Your task to perform on an android device: Clear the shopping cart on bestbuy.com. Add razer naga to the cart on bestbuy.com Image 0: 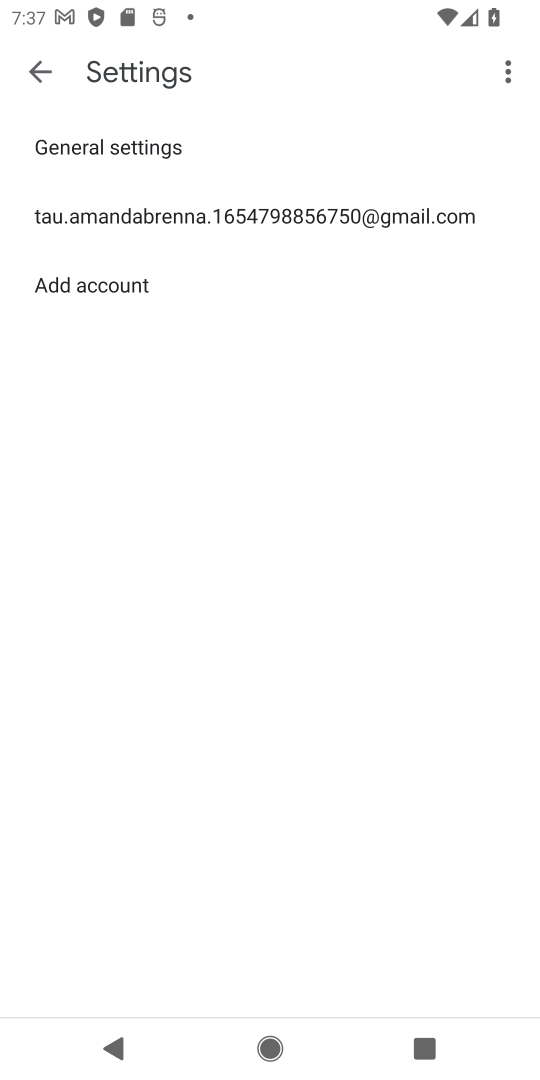
Step 0: press home button
Your task to perform on an android device: Clear the shopping cart on bestbuy.com. Add razer naga to the cart on bestbuy.com Image 1: 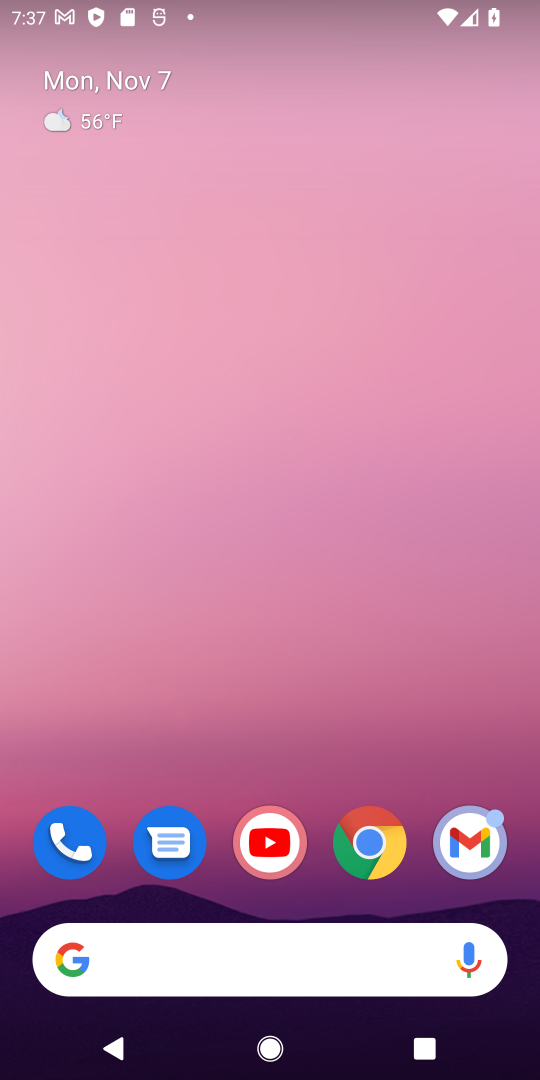
Step 1: click (531, 923)
Your task to perform on an android device: Clear the shopping cart on bestbuy.com. Add razer naga to the cart on bestbuy.com Image 2: 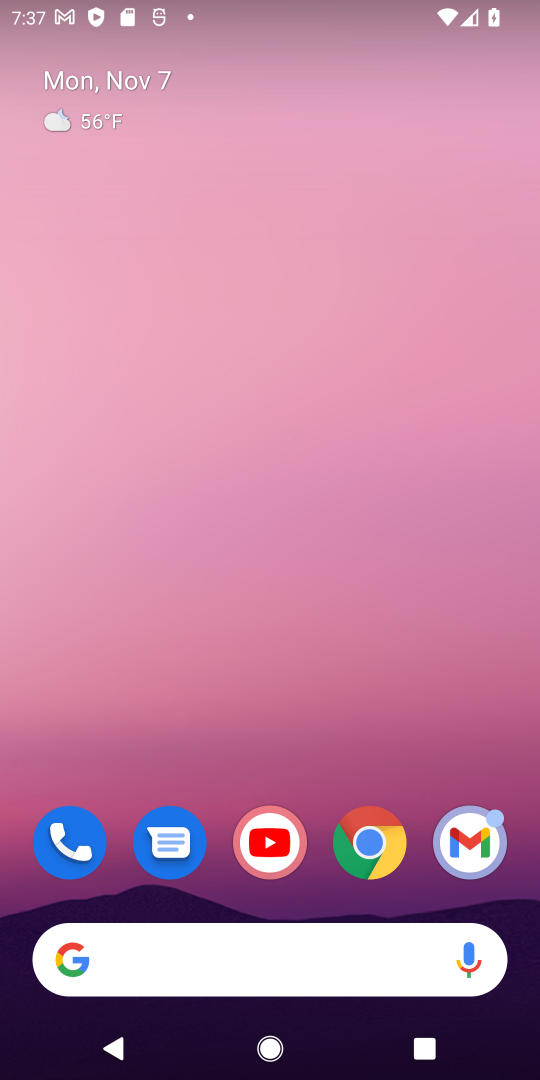
Step 2: click (365, 840)
Your task to perform on an android device: Clear the shopping cart on bestbuy.com. Add razer naga to the cart on bestbuy.com Image 3: 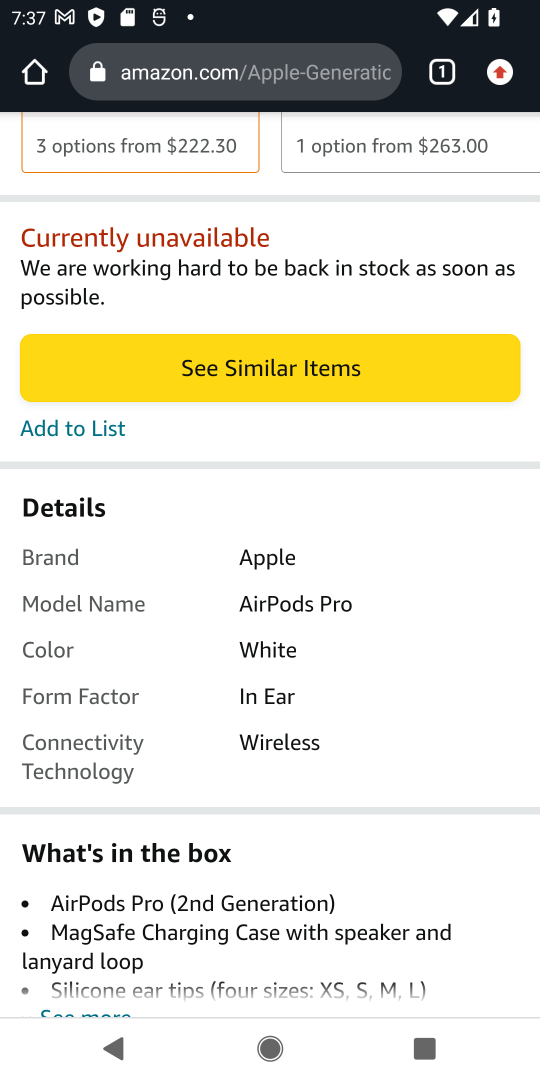
Step 3: click (303, 87)
Your task to perform on an android device: Clear the shopping cart on bestbuy.com. Add razer naga to the cart on bestbuy.com Image 4: 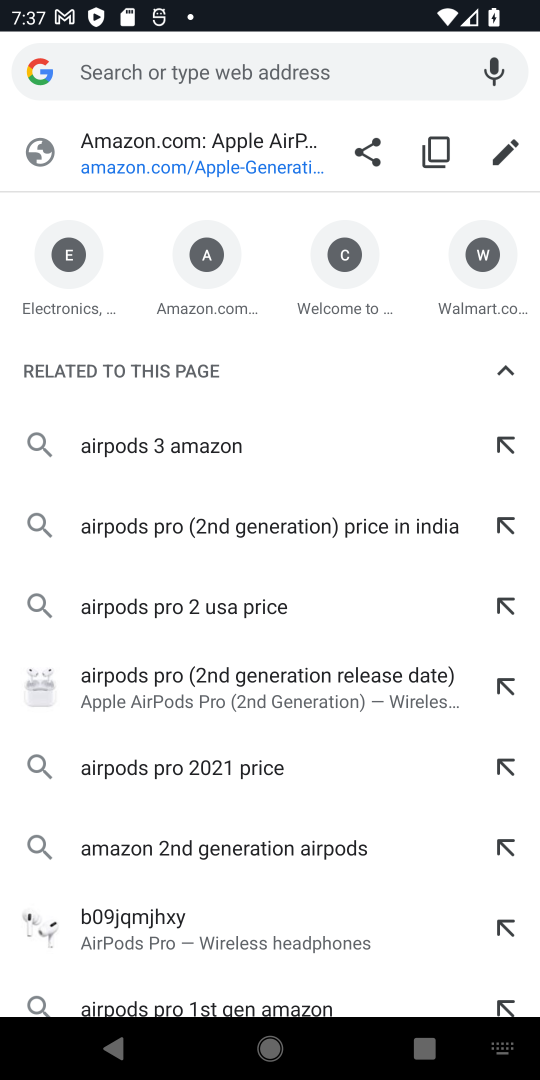
Step 4: drag from (477, 284) to (42, 351)
Your task to perform on an android device: Clear the shopping cart on bestbuy.com. Add razer naga to the cart on bestbuy.com Image 5: 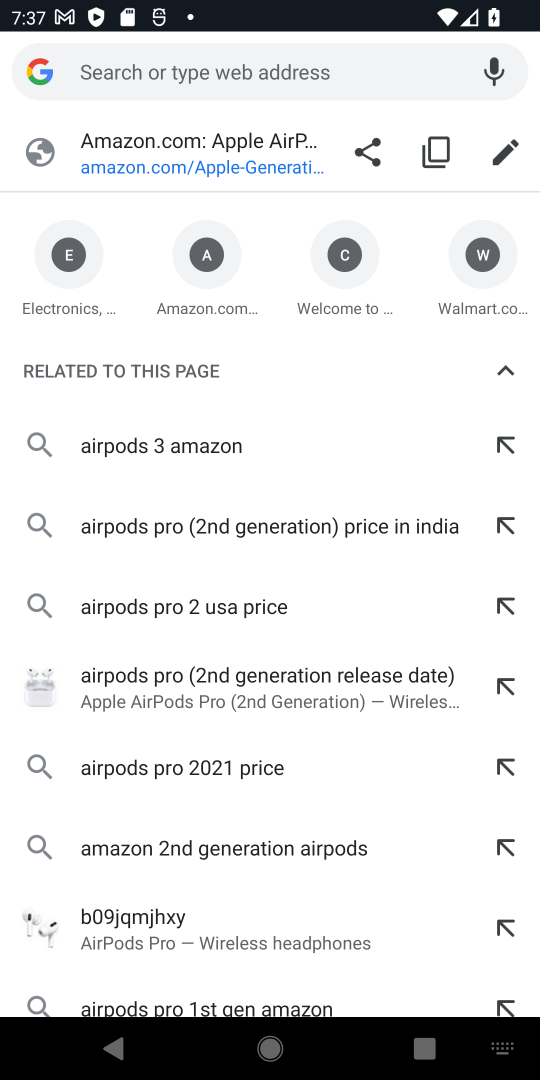
Step 5: drag from (389, 298) to (0, 355)
Your task to perform on an android device: Clear the shopping cart on bestbuy.com. Add razer naga to the cart on bestbuy.com Image 6: 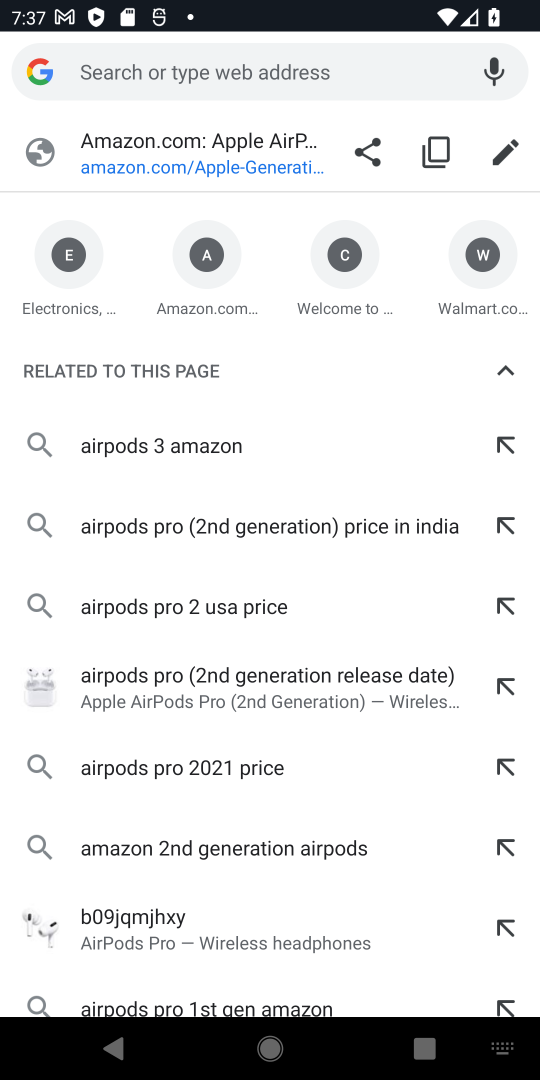
Step 6: type "bestbuy.com"
Your task to perform on an android device: Clear the shopping cart on bestbuy.com. Add razer naga to the cart on bestbuy.com Image 7: 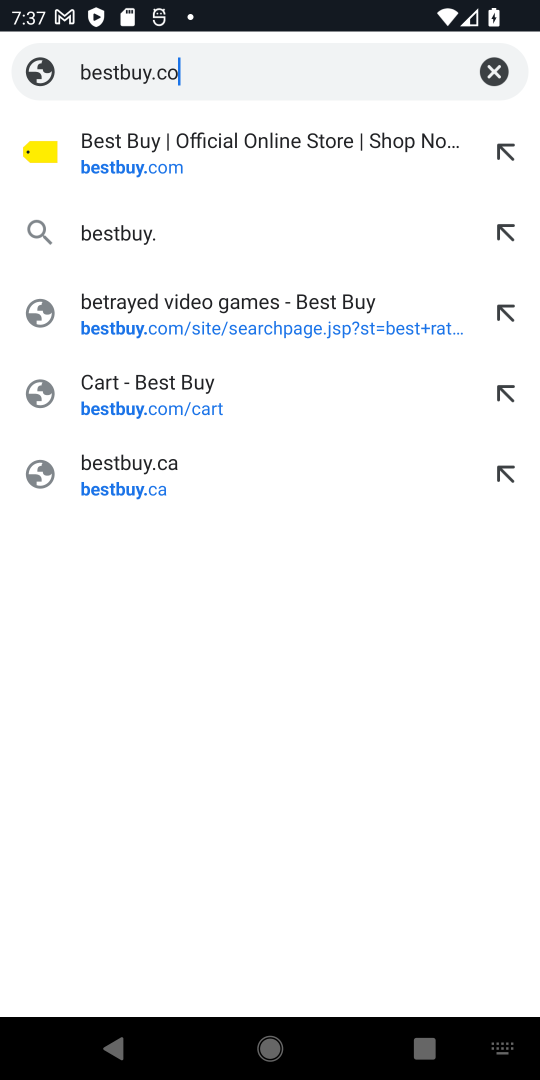
Step 7: press enter
Your task to perform on an android device: Clear the shopping cart on bestbuy.com. Add razer naga to the cart on bestbuy.com Image 8: 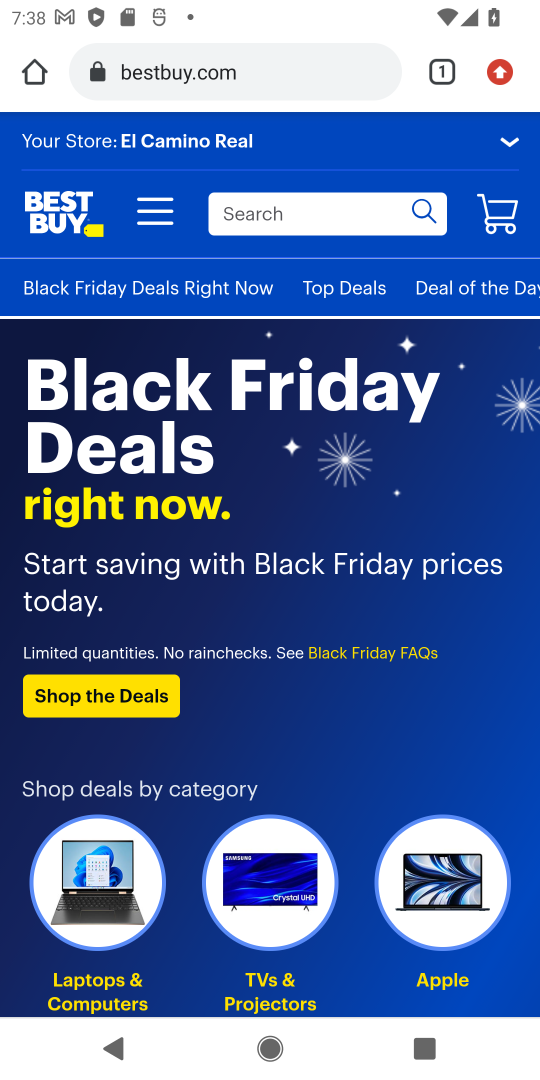
Step 8: click (330, 216)
Your task to perform on an android device: Clear the shopping cart on bestbuy.com. Add razer naga to the cart on bestbuy.com Image 9: 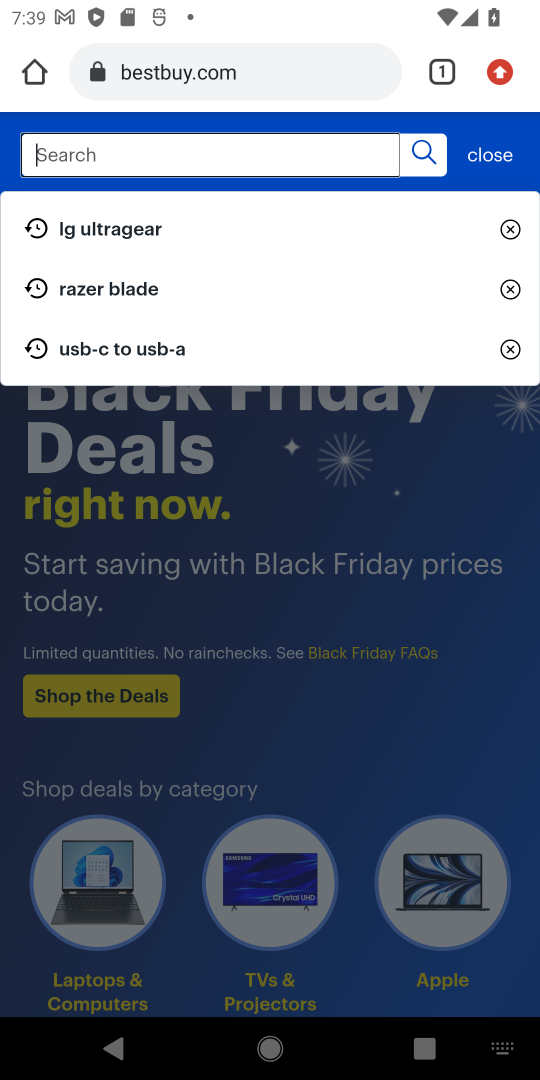
Step 9: type "razer naga"
Your task to perform on an android device: Clear the shopping cart on bestbuy.com. Add razer naga to the cart on bestbuy.com Image 10: 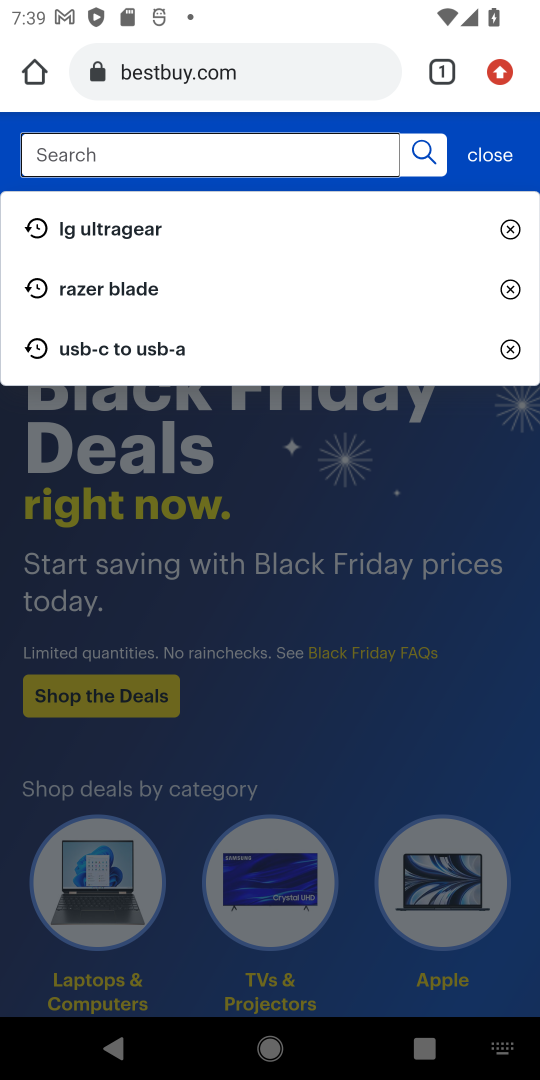
Step 10: press enter
Your task to perform on an android device: Clear the shopping cart on bestbuy.com. Add razer naga to the cart on bestbuy.com Image 11: 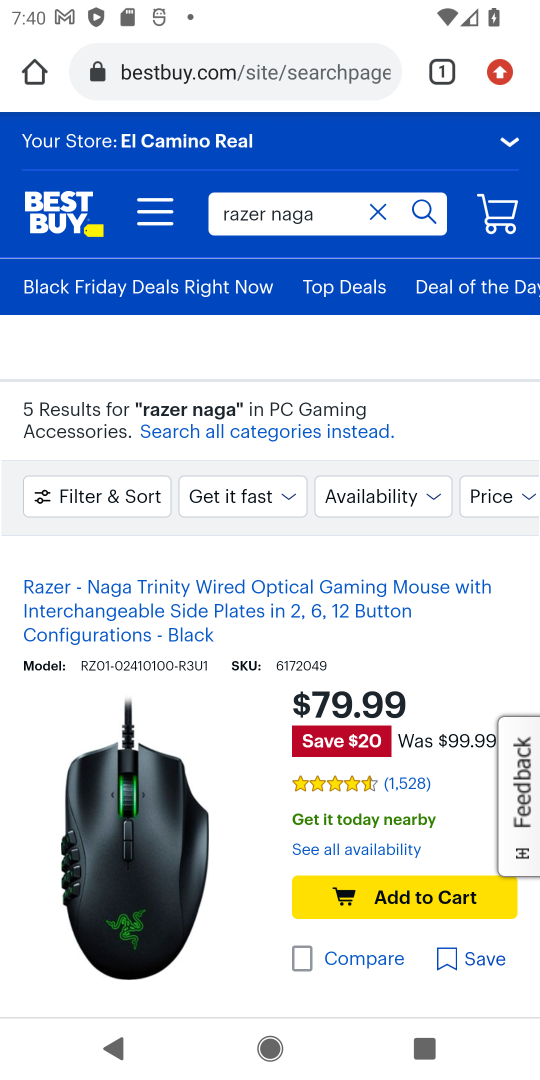
Step 11: click (409, 893)
Your task to perform on an android device: Clear the shopping cart on bestbuy.com. Add razer naga to the cart on bestbuy.com Image 12: 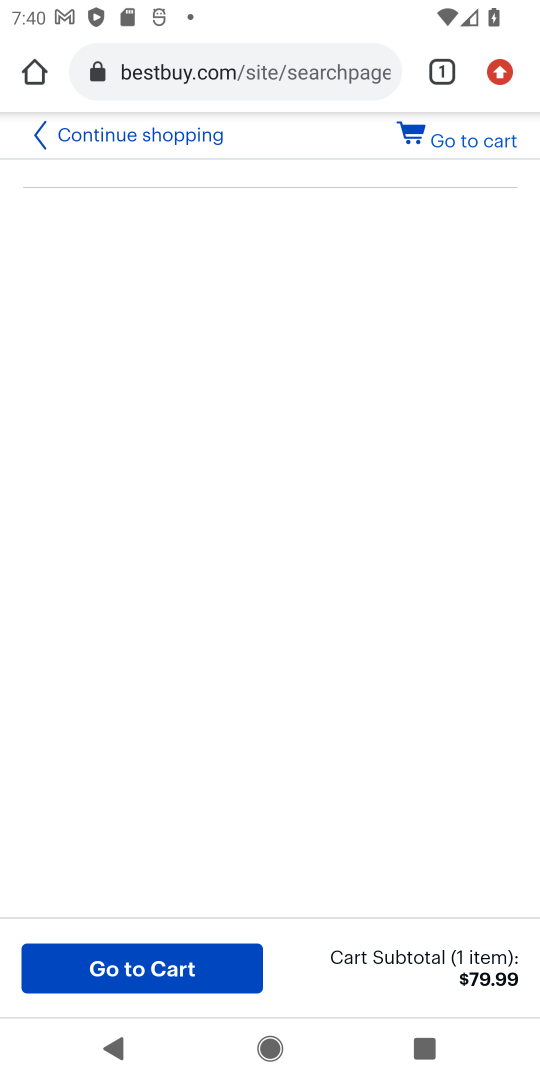
Step 12: click (467, 135)
Your task to perform on an android device: Clear the shopping cart on bestbuy.com. Add razer naga to the cart on bestbuy.com Image 13: 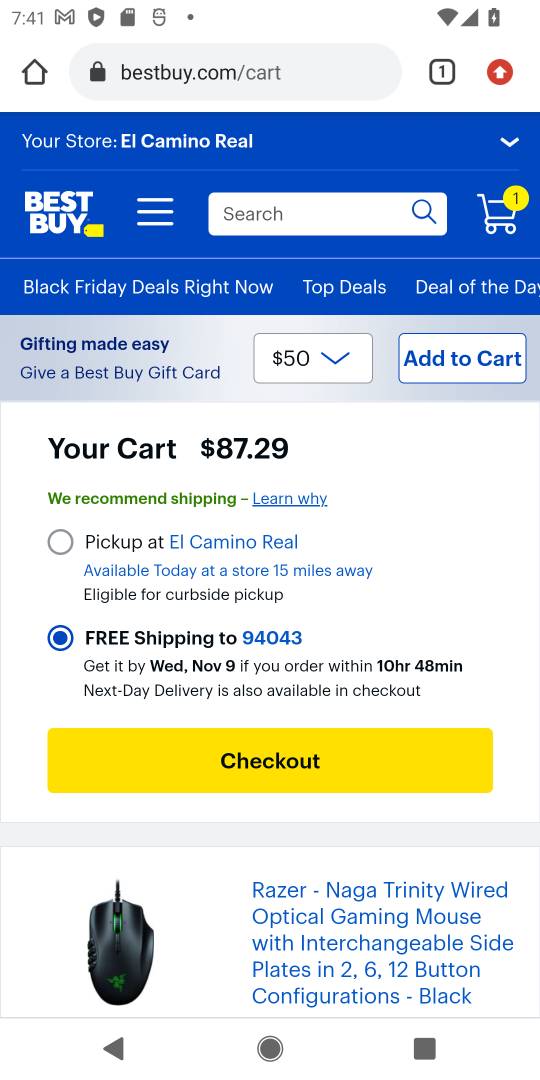
Step 13: task complete